Your task to perform on an android device: find photos in the google photos app Image 0: 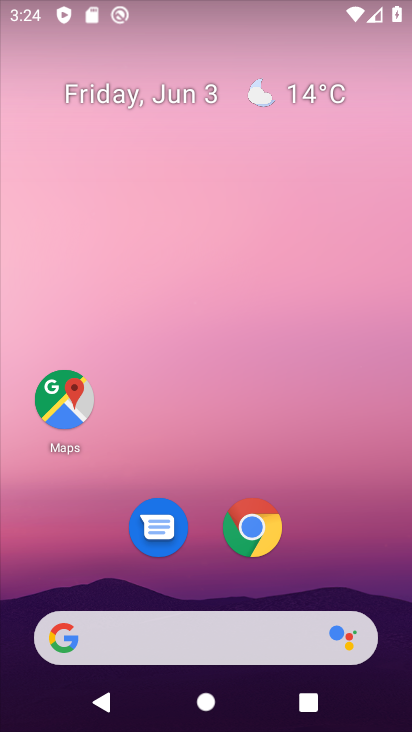
Step 0: drag from (341, 545) to (210, 22)
Your task to perform on an android device: find photos in the google photos app Image 1: 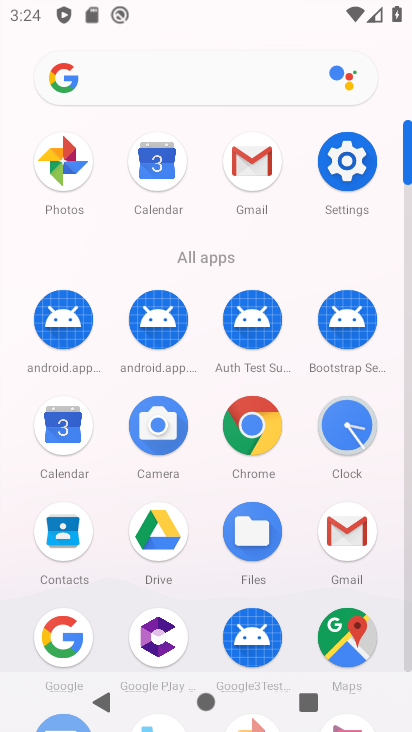
Step 1: drag from (292, 263) to (254, 7)
Your task to perform on an android device: find photos in the google photos app Image 2: 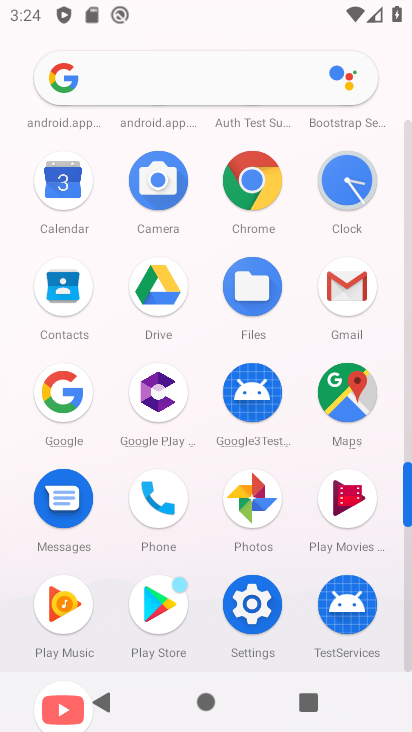
Step 2: click (252, 498)
Your task to perform on an android device: find photos in the google photos app Image 3: 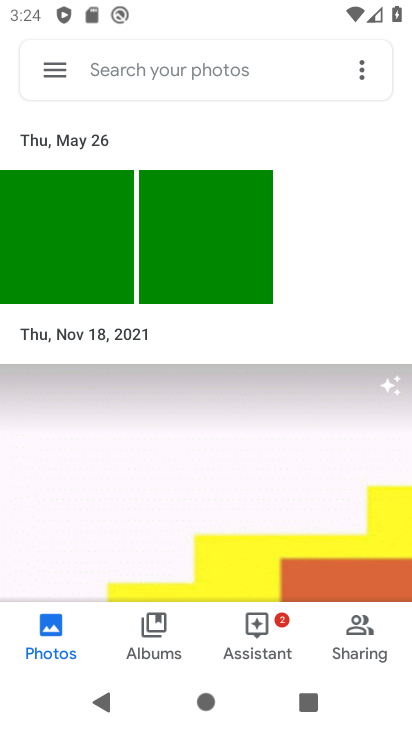
Step 3: drag from (197, 491) to (289, 335)
Your task to perform on an android device: find photos in the google photos app Image 4: 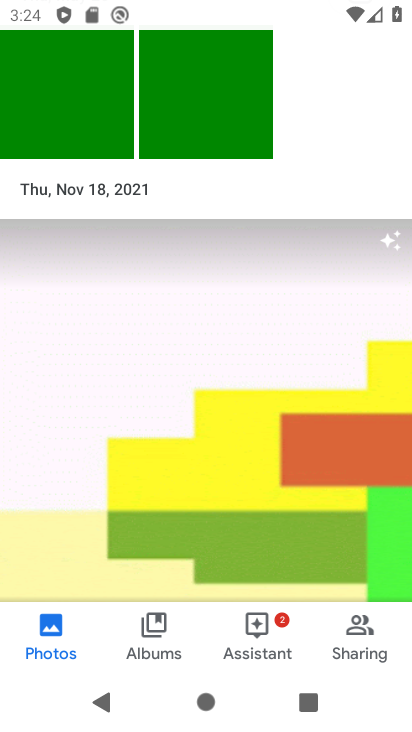
Step 4: drag from (222, 529) to (310, 305)
Your task to perform on an android device: find photos in the google photos app Image 5: 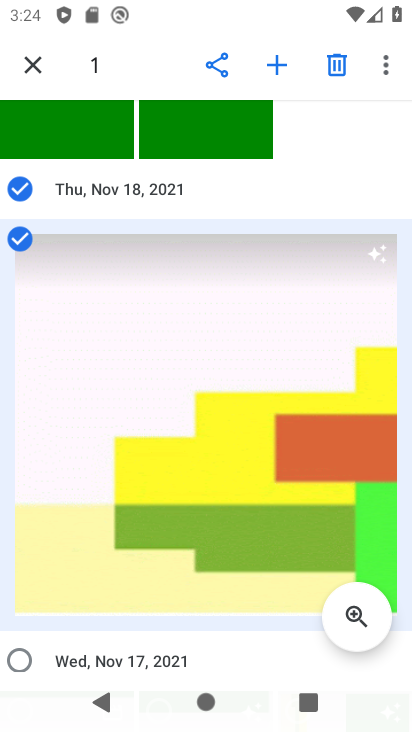
Step 5: click (272, 433)
Your task to perform on an android device: find photos in the google photos app Image 6: 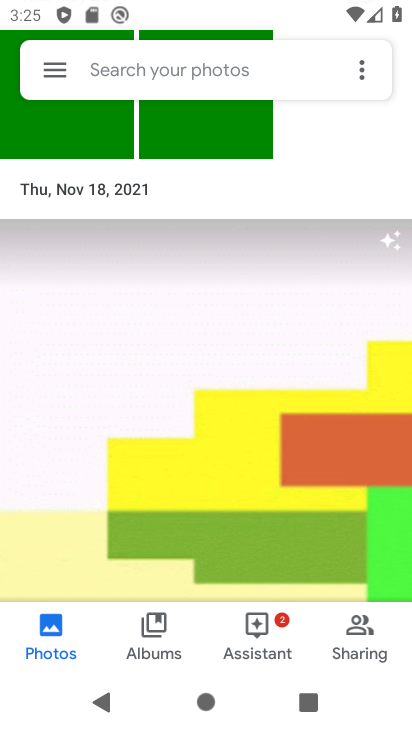
Step 6: task complete